Your task to perform on an android device: toggle show notifications on the lock screen Image 0: 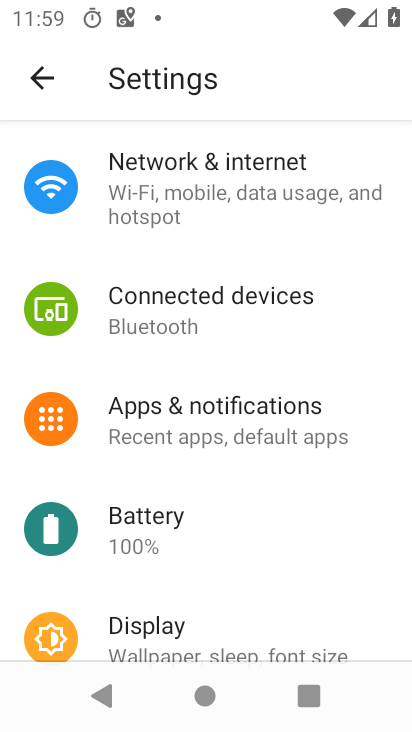
Step 0: click (227, 419)
Your task to perform on an android device: toggle show notifications on the lock screen Image 1: 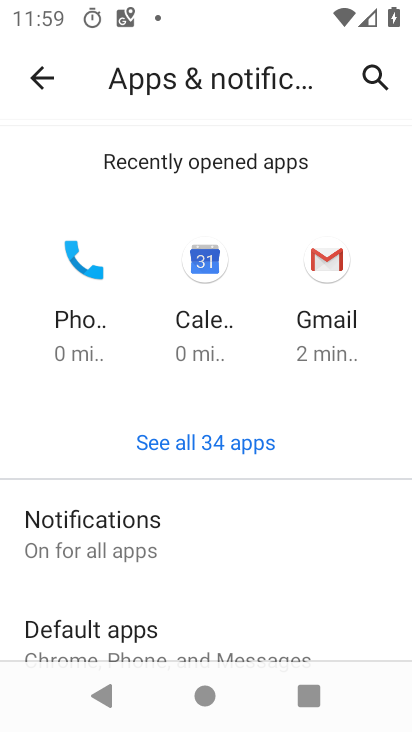
Step 1: click (70, 515)
Your task to perform on an android device: toggle show notifications on the lock screen Image 2: 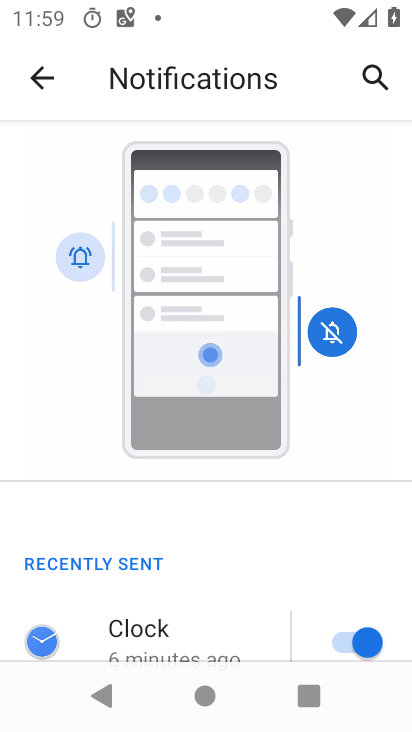
Step 2: drag from (257, 623) to (275, 214)
Your task to perform on an android device: toggle show notifications on the lock screen Image 3: 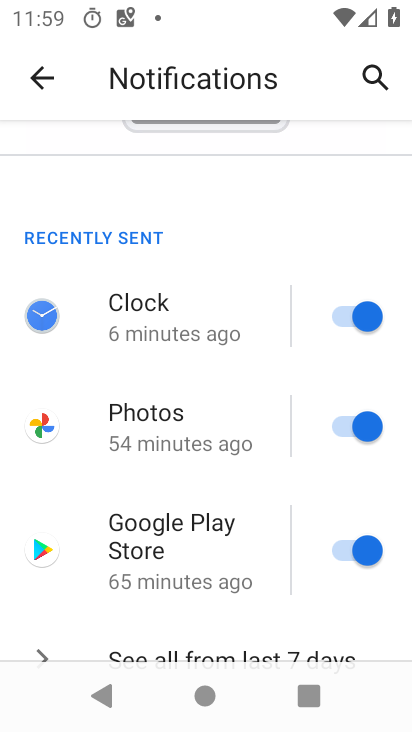
Step 3: drag from (273, 632) to (230, 164)
Your task to perform on an android device: toggle show notifications on the lock screen Image 4: 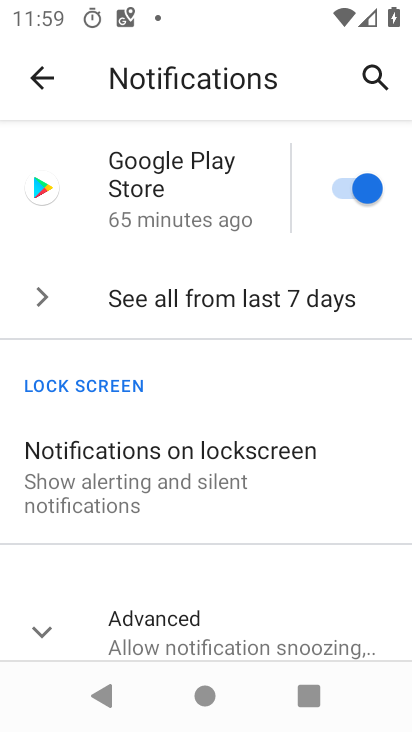
Step 4: click (172, 482)
Your task to perform on an android device: toggle show notifications on the lock screen Image 5: 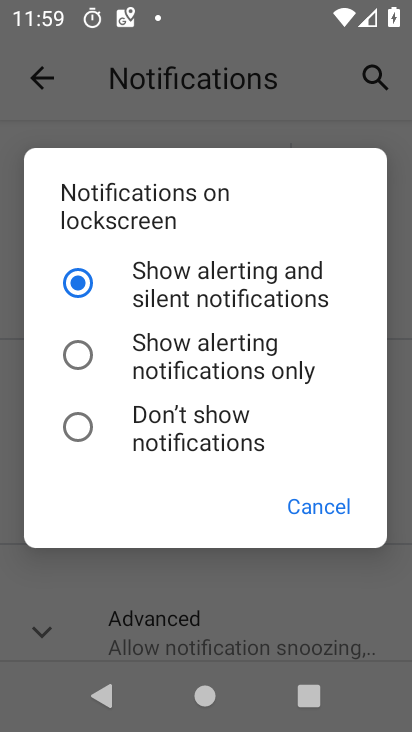
Step 5: click (284, 507)
Your task to perform on an android device: toggle show notifications on the lock screen Image 6: 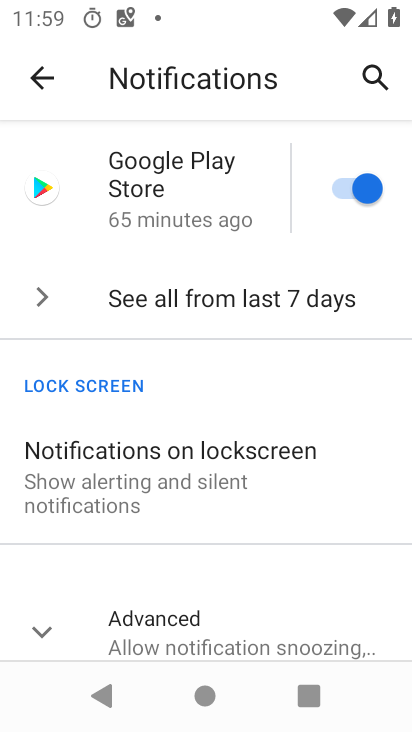
Step 6: click (139, 446)
Your task to perform on an android device: toggle show notifications on the lock screen Image 7: 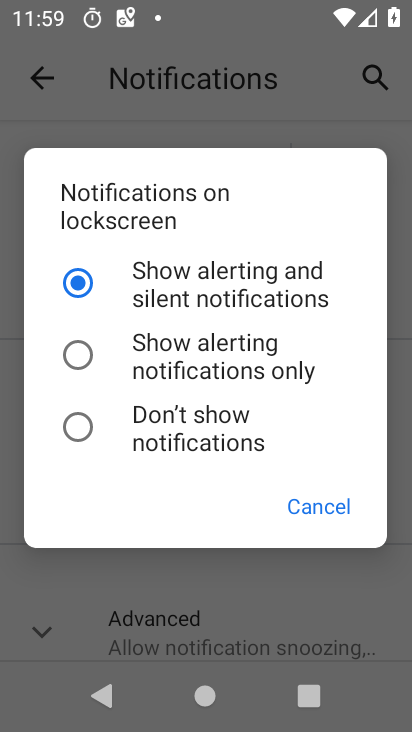
Step 7: click (82, 349)
Your task to perform on an android device: toggle show notifications on the lock screen Image 8: 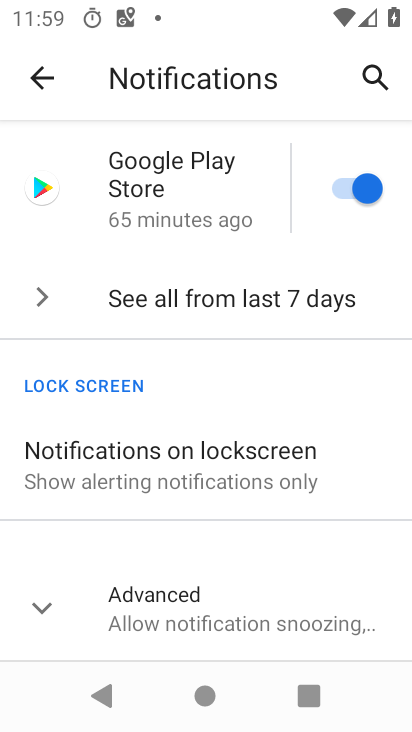
Step 8: task complete